Your task to perform on an android device: Is it going to rain tomorrow? Image 0: 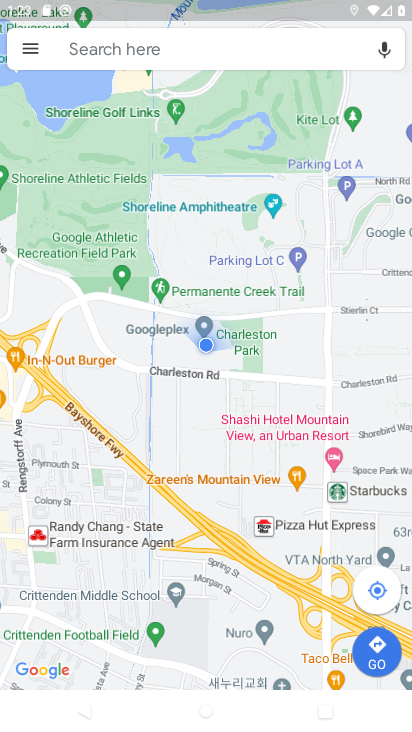
Step 0: press home button
Your task to perform on an android device: Is it going to rain tomorrow? Image 1: 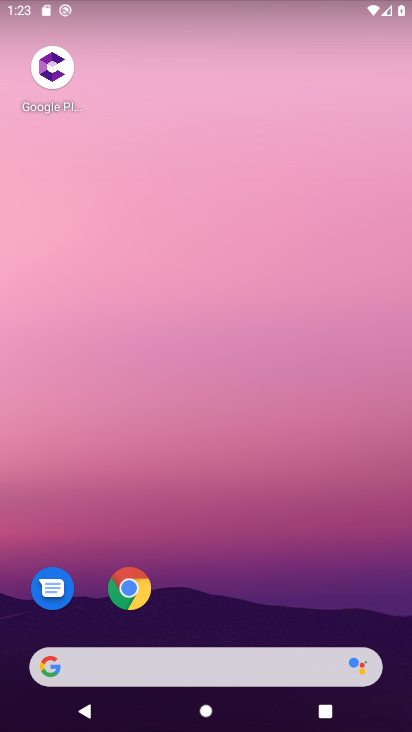
Step 1: click (128, 602)
Your task to perform on an android device: Is it going to rain tomorrow? Image 2: 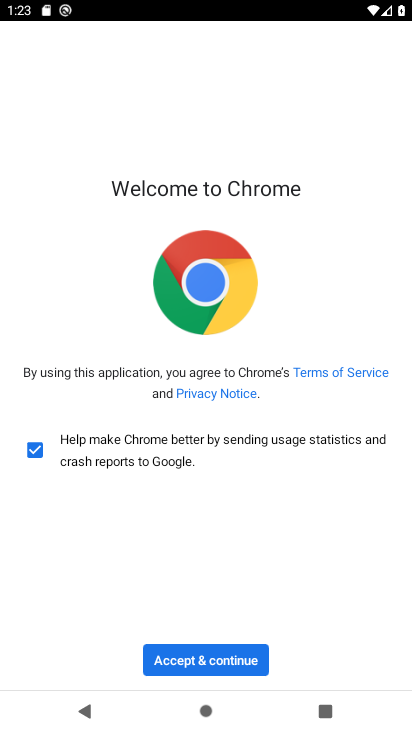
Step 2: click (201, 651)
Your task to perform on an android device: Is it going to rain tomorrow? Image 3: 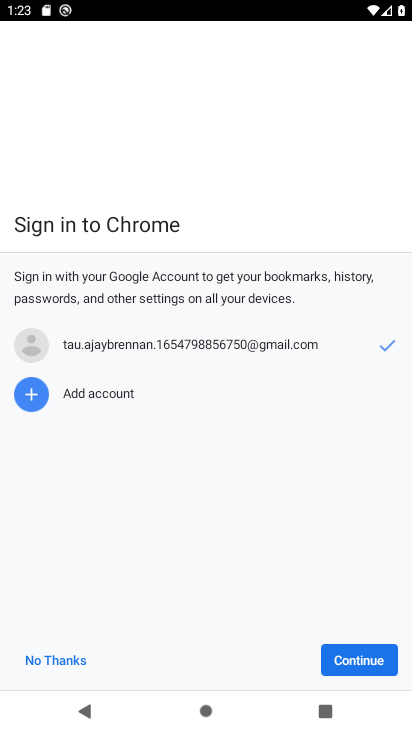
Step 3: click (381, 647)
Your task to perform on an android device: Is it going to rain tomorrow? Image 4: 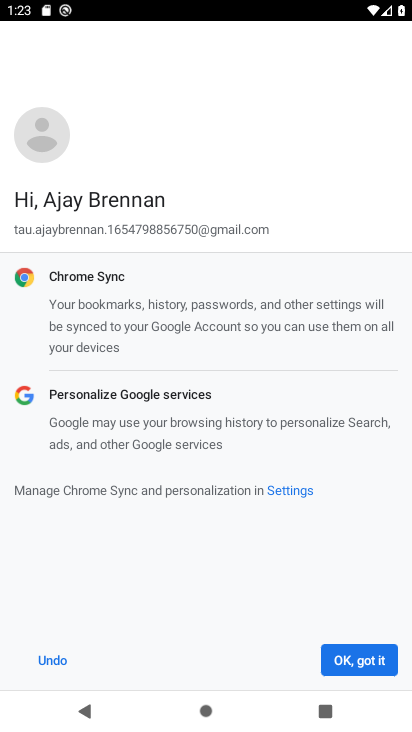
Step 4: click (372, 655)
Your task to perform on an android device: Is it going to rain tomorrow? Image 5: 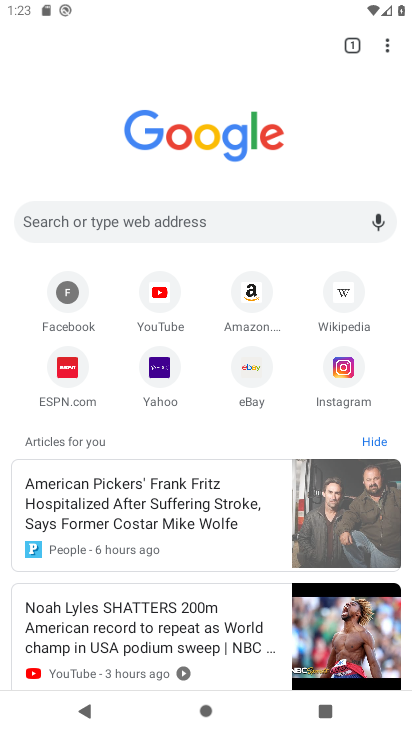
Step 5: click (166, 233)
Your task to perform on an android device: Is it going to rain tomorrow? Image 6: 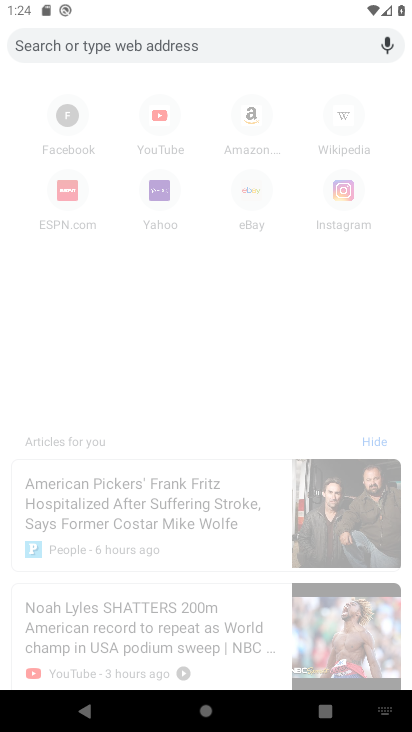
Step 6: type "Is it going to rain tomorrow?"
Your task to perform on an android device: Is it going to rain tomorrow? Image 7: 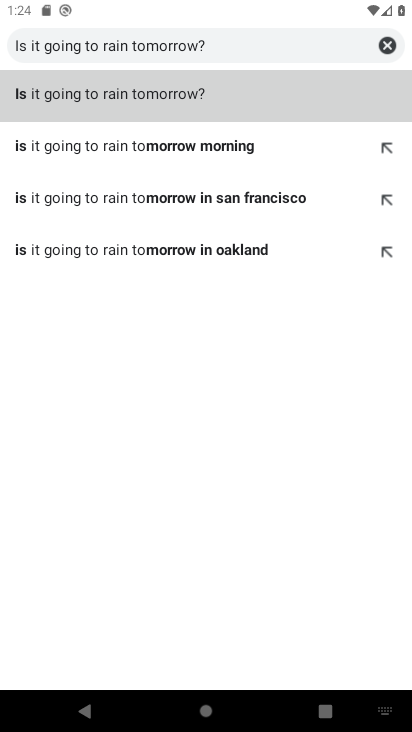
Step 7: click (90, 91)
Your task to perform on an android device: Is it going to rain tomorrow? Image 8: 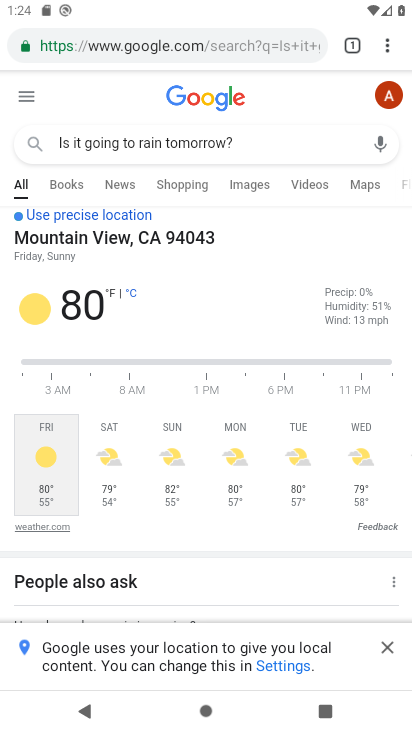
Step 8: task complete